Your task to perform on an android device: Open Maps and search for coffee Image 0: 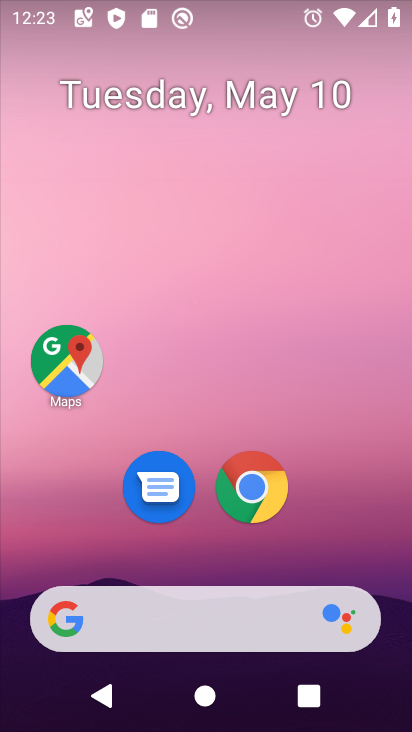
Step 0: click (52, 369)
Your task to perform on an android device: Open Maps and search for coffee Image 1: 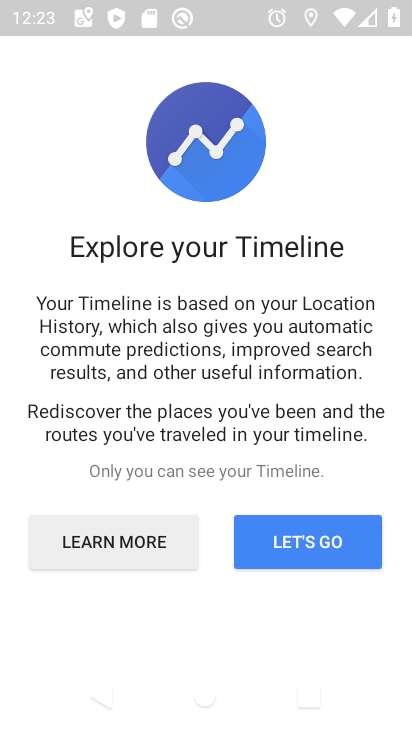
Step 1: click (290, 542)
Your task to perform on an android device: Open Maps and search for coffee Image 2: 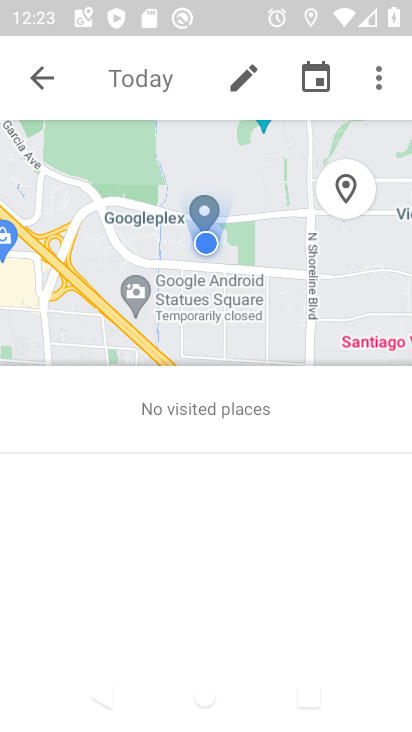
Step 2: click (41, 63)
Your task to perform on an android device: Open Maps and search for coffee Image 3: 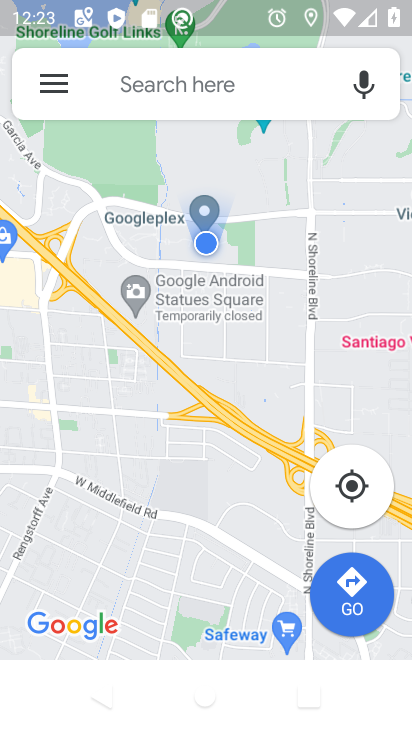
Step 3: click (185, 76)
Your task to perform on an android device: Open Maps and search for coffee Image 4: 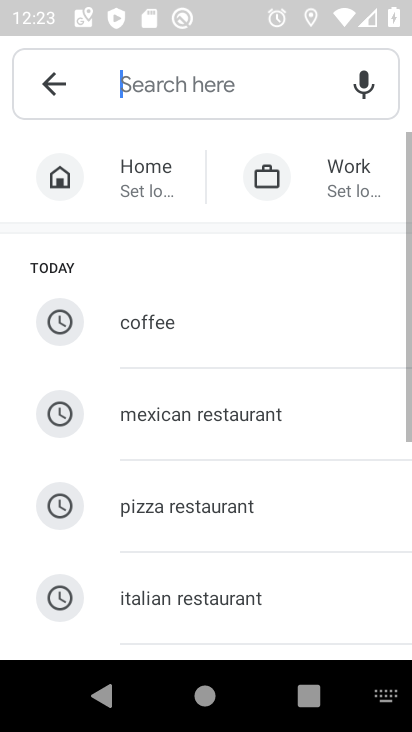
Step 4: type ""
Your task to perform on an android device: Open Maps and search for coffee Image 5: 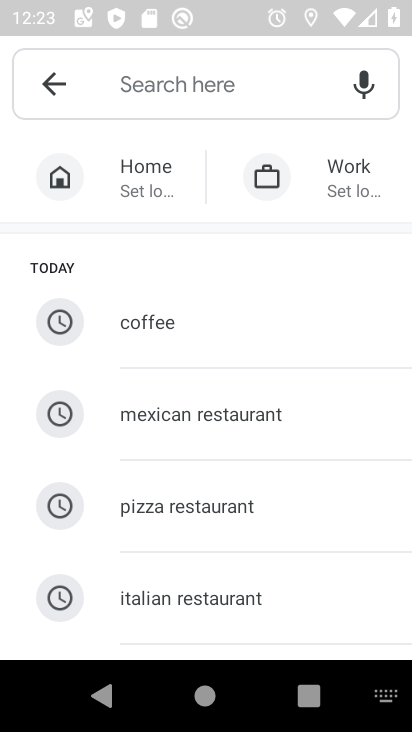
Step 5: click (239, 323)
Your task to perform on an android device: Open Maps and search for coffee Image 6: 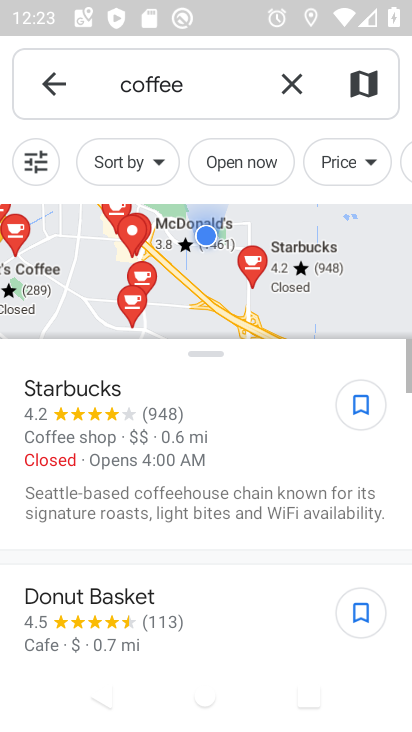
Step 6: task complete